Your task to perform on an android device: Search for bose soundlink on newegg.com, select the first entry, add it to the cart, then select checkout. Image 0: 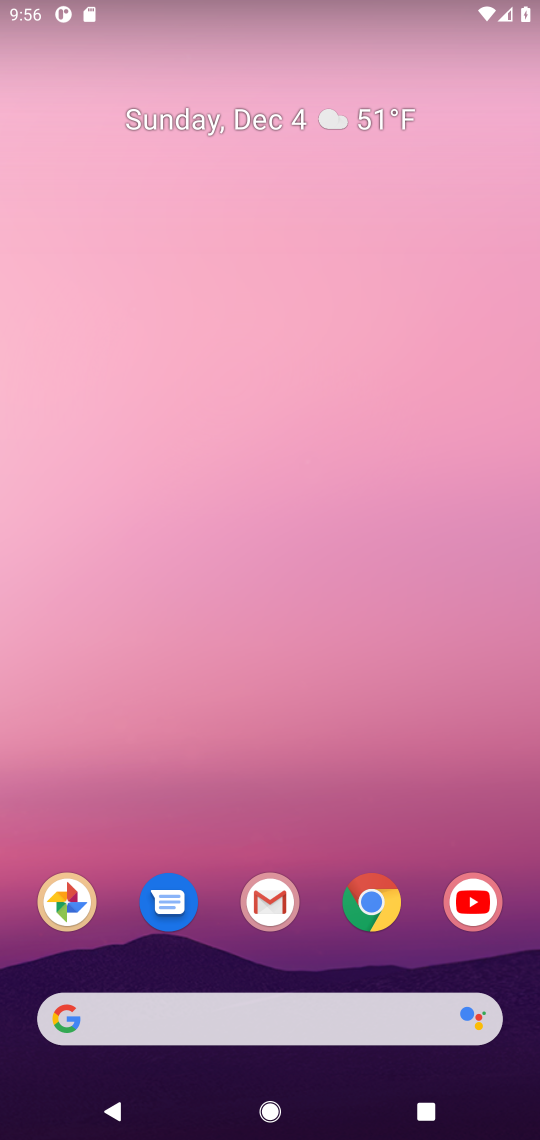
Step 0: click (384, 904)
Your task to perform on an android device: Search for bose soundlink on newegg.com, select the first entry, add it to the cart, then select checkout. Image 1: 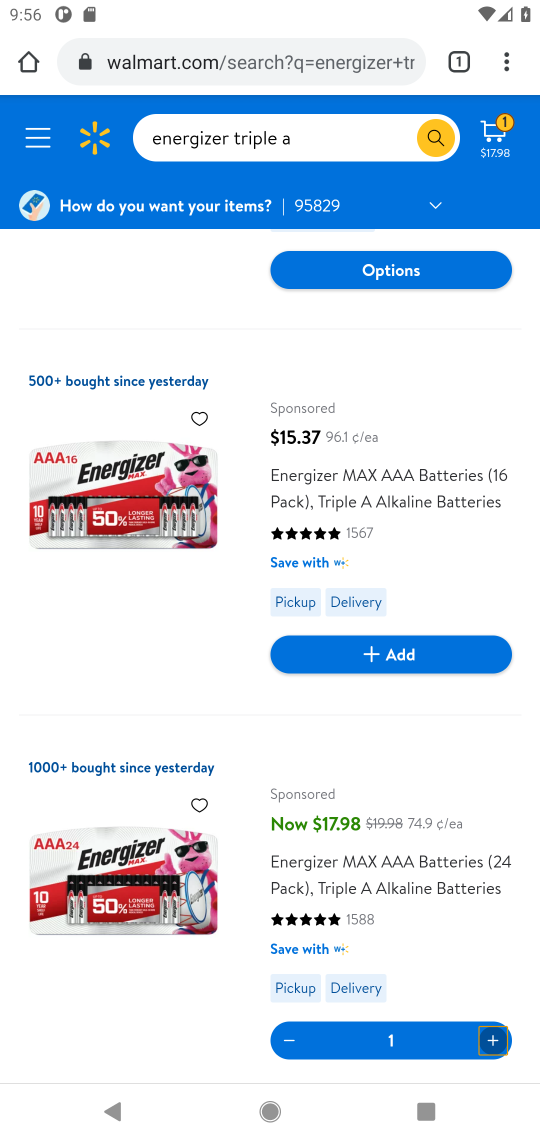
Step 1: click (234, 54)
Your task to perform on an android device: Search for bose soundlink on newegg.com, select the first entry, add it to the cart, then select checkout. Image 2: 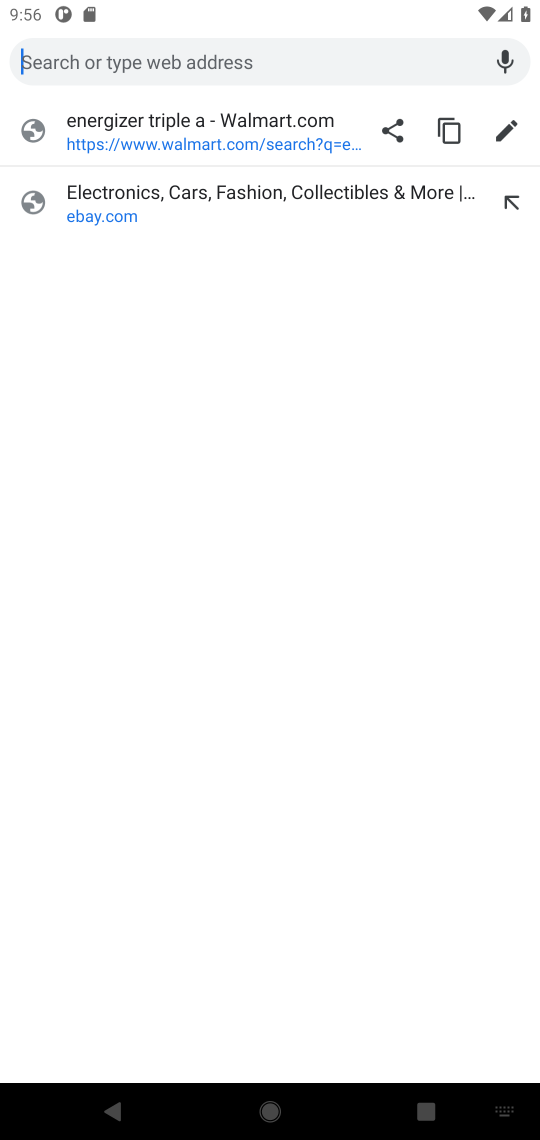
Step 2: type "newegg"
Your task to perform on an android device: Search for bose soundlink on newegg.com, select the first entry, add it to the cart, then select checkout. Image 3: 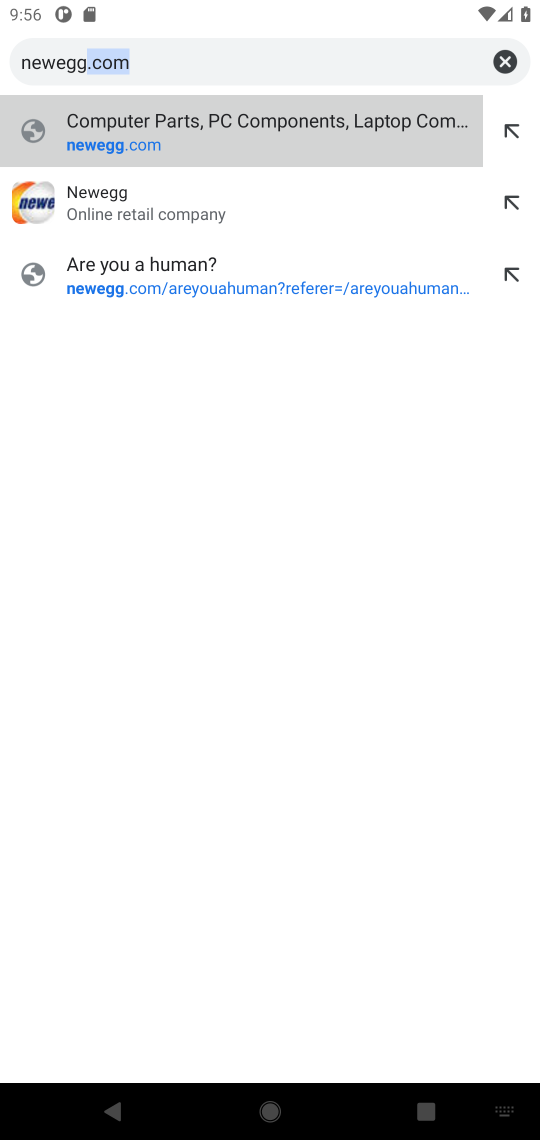
Step 3: click (40, 192)
Your task to perform on an android device: Search for bose soundlink on newegg.com, select the first entry, add it to the cart, then select checkout. Image 4: 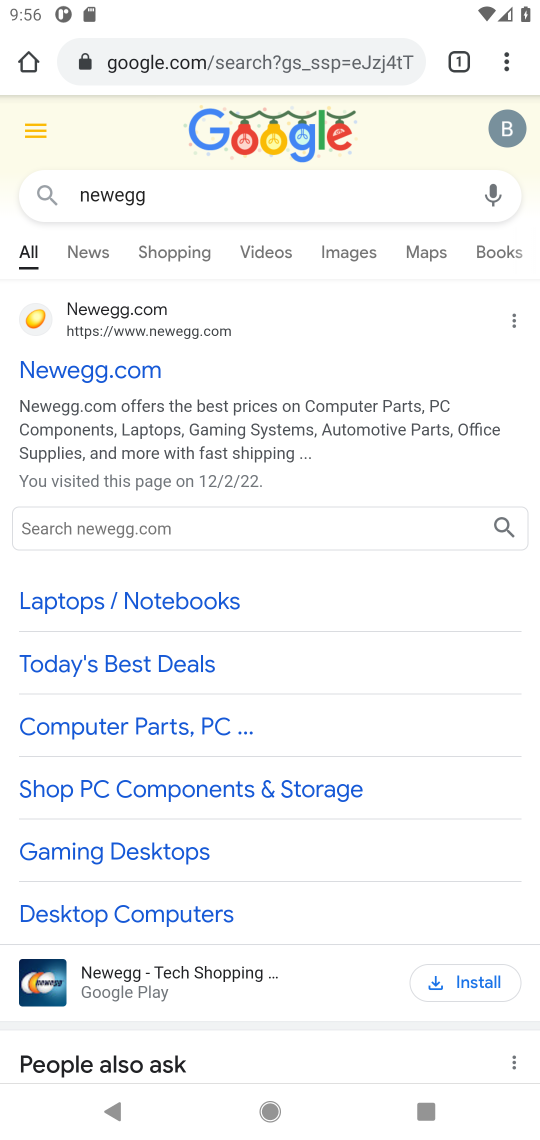
Step 4: click (107, 381)
Your task to perform on an android device: Search for bose soundlink on newegg.com, select the first entry, add it to the cart, then select checkout. Image 5: 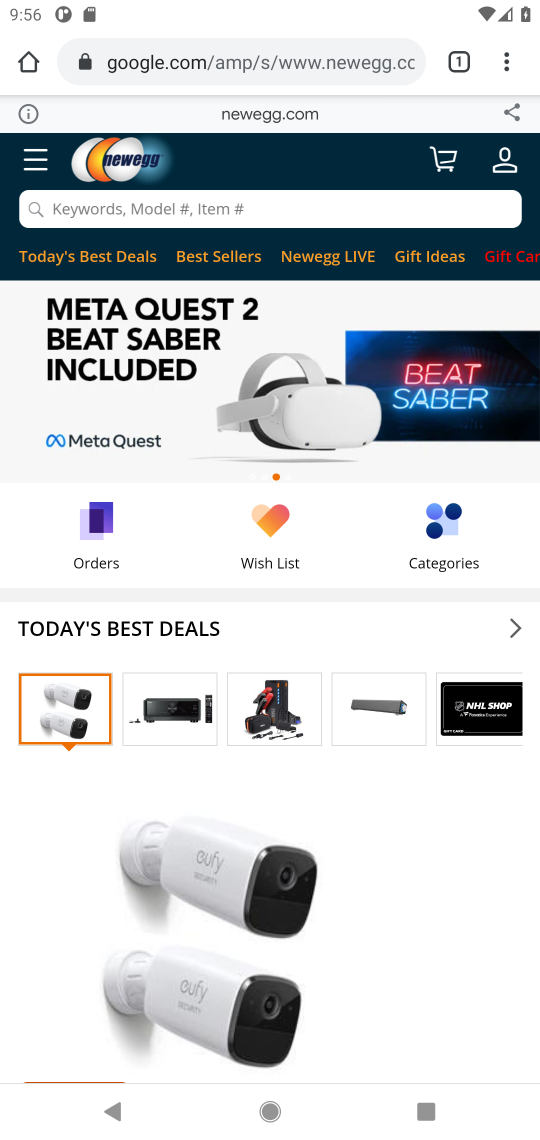
Step 5: click (161, 208)
Your task to perform on an android device: Search for bose soundlink on newegg.com, select the first entry, add it to the cart, then select checkout. Image 6: 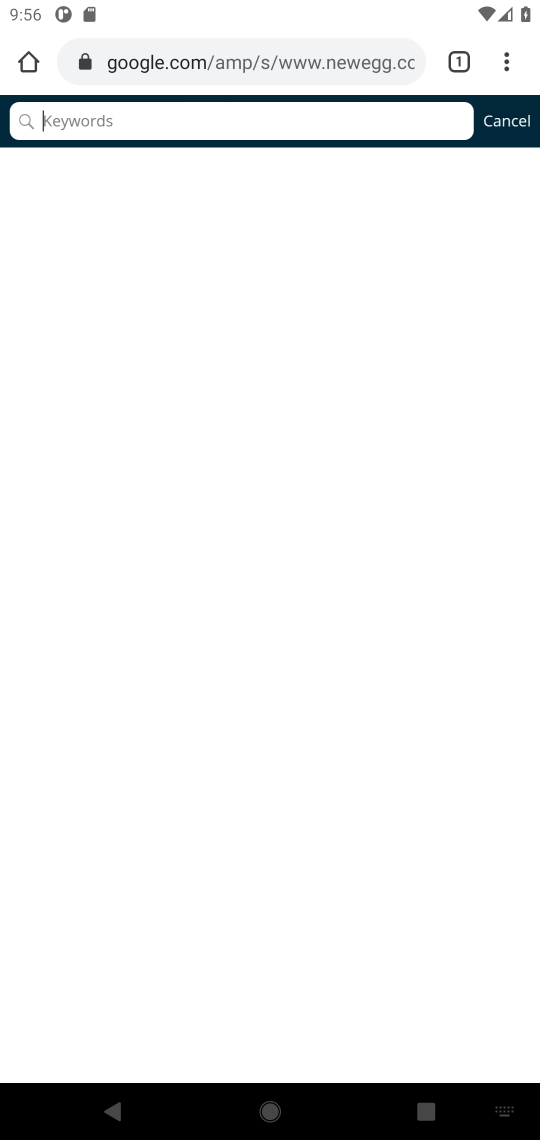
Step 6: type " bose soundlink"
Your task to perform on an android device: Search for bose soundlink on newegg.com, select the first entry, add it to the cart, then select checkout. Image 7: 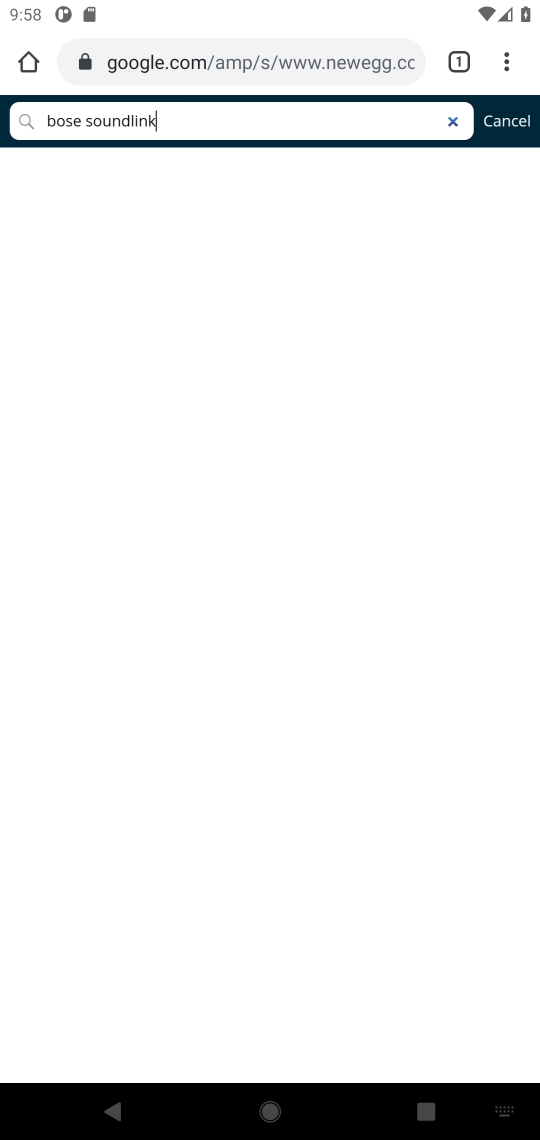
Step 7: task complete